Your task to perform on an android device: Go to Maps Image 0: 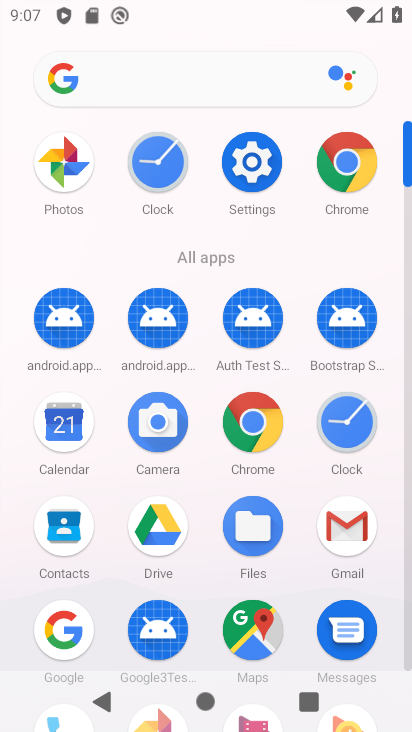
Step 0: press home button
Your task to perform on an android device: Go to Maps Image 1: 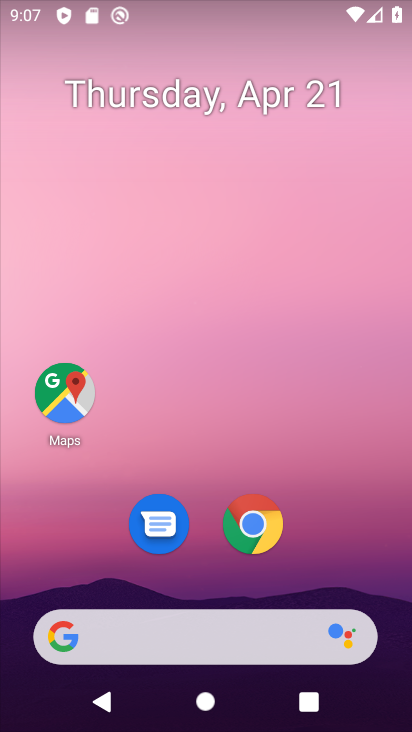
Step 1: click (54, 390)
Your task to perform on an android device: Go to Maps Image 2: 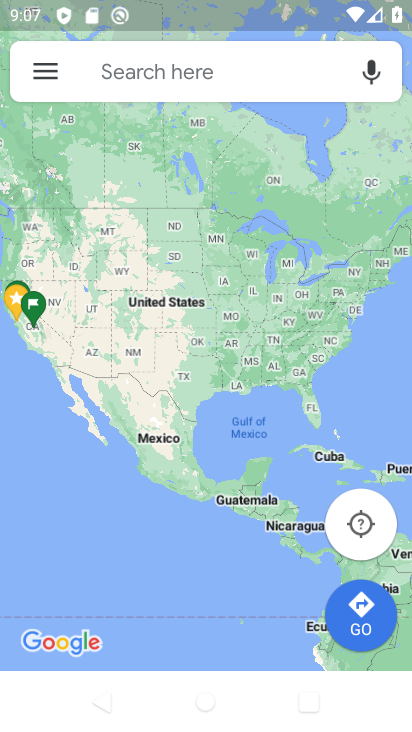
Step 2: task complete